Your task to perform on an android device: Check the news Image 0: 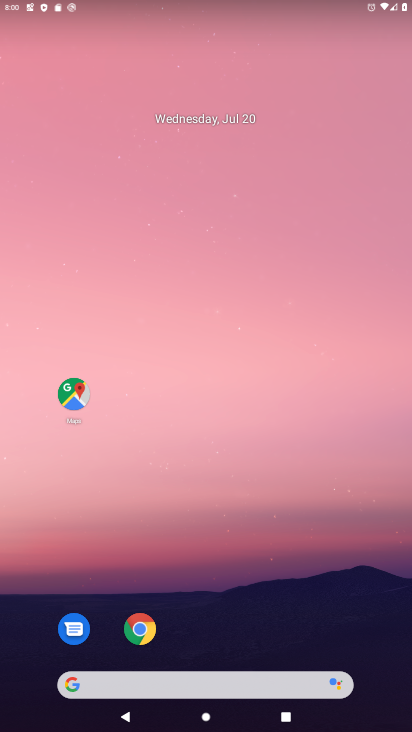
Step 0: click (128, 683)
Your task to perform on an android device: Check the news Image 1: 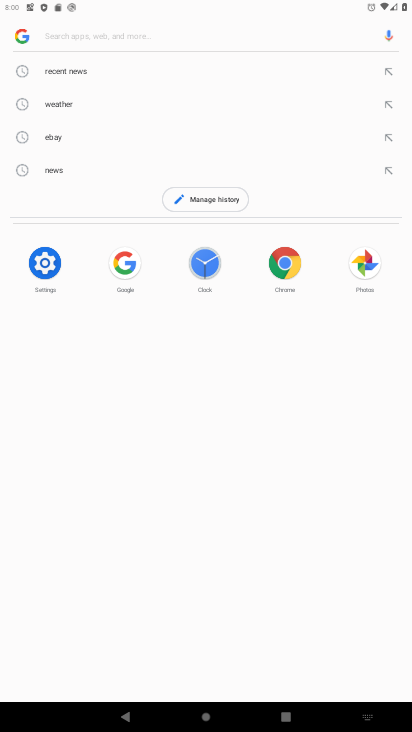
Step 1: click (48, 175)
Your task to perform on an android device: Check the news Image 2: 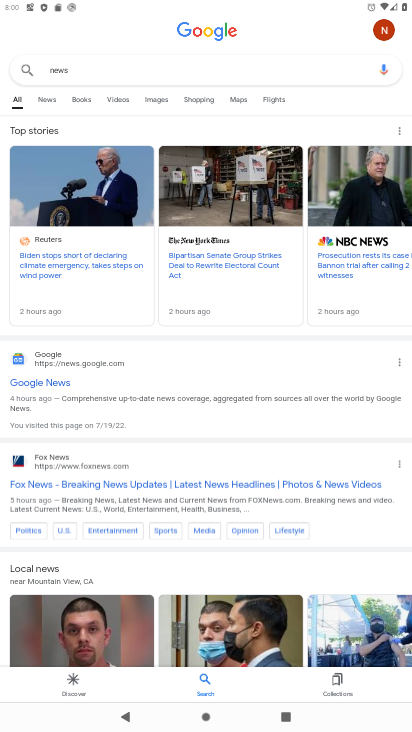
Step 2: task complete